Your task to perform on an android device: What's the weather today? Image 0: 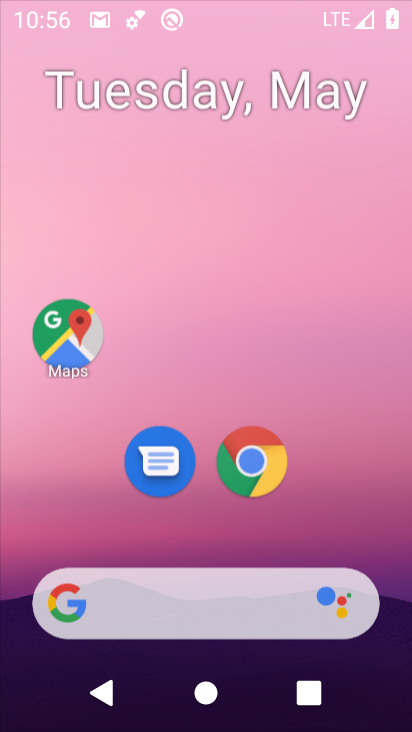
Step 0: click (270, 123)
Your task to perform on an android device: What's the weather today? Image 1: 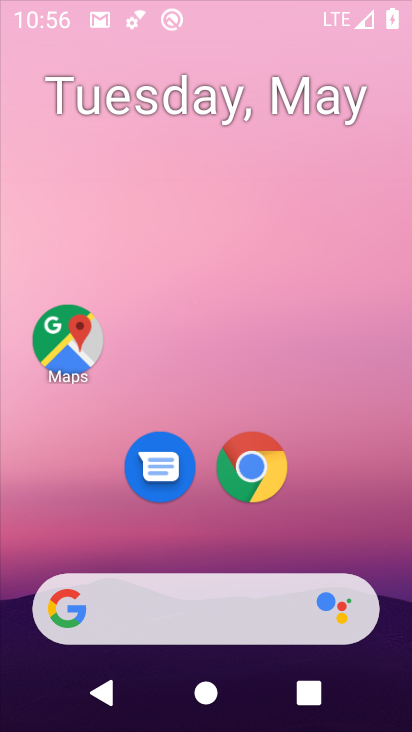
Step 1: drag from (190, 517) to (283, 10)
Your task to perform on an android device: What's the weather today? Image 2: 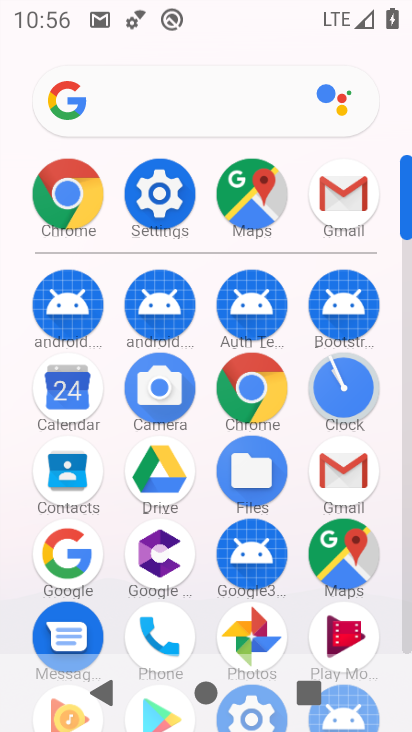
Step 2: click (50, 561)
Your task to perform on an android device: What's the weather today? Image 3: 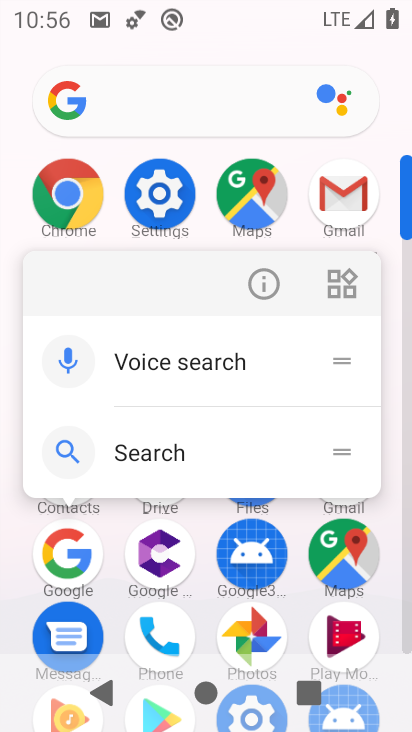
Step 3: click (175, 106)
Your task to perform on an android device: What's the weather today? Image 4: 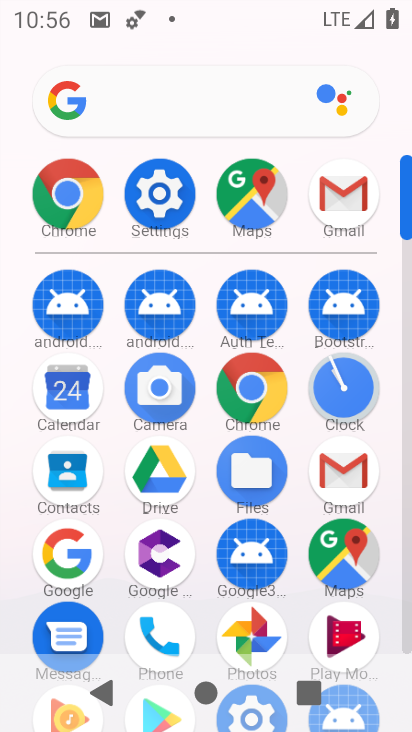
Step 4: click (161, 99)
Your task to perform on an android device: What's the weather today? Image 5: 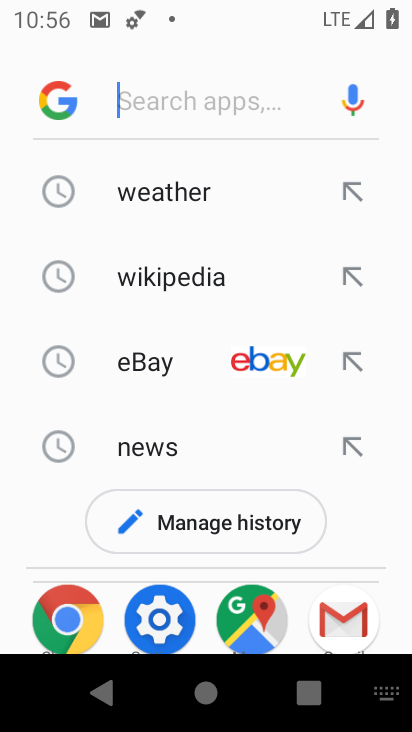
Step 5: click (166, 203)
Your task to perform on an android device: What's the weather today? Image 6: 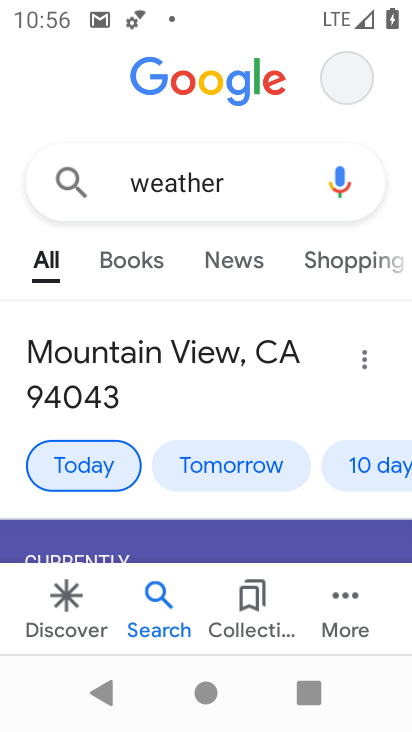
Step 6: drag from (254, 463) to (343, 133)
Your task to perform on an android device: What's the weather today? Image 7: 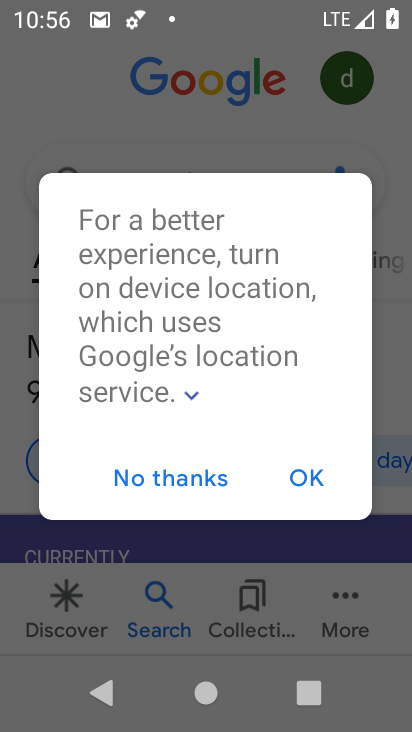
Step 7: click (298, 475)
Your task to perform on an android device: What's the weather today? Image 8: 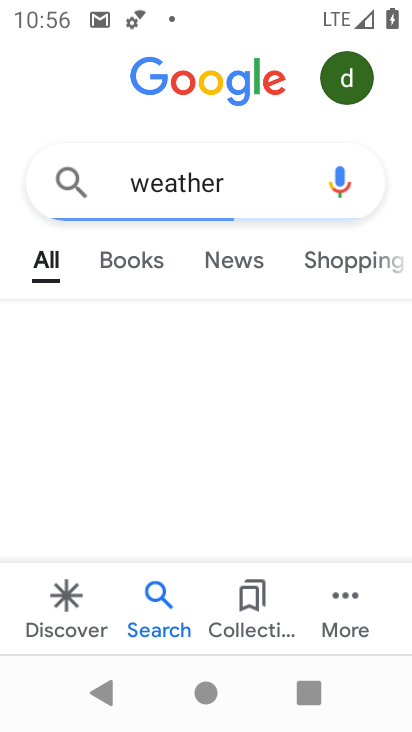
Step 8: task complete